Your task to perform on an android device: check out phone information Image 0: 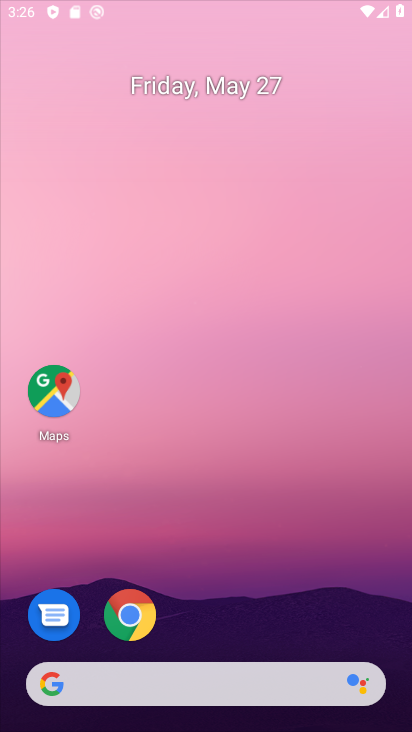
Step 0: press home button
Your task to perform on an android device: check out phone information Image 1: 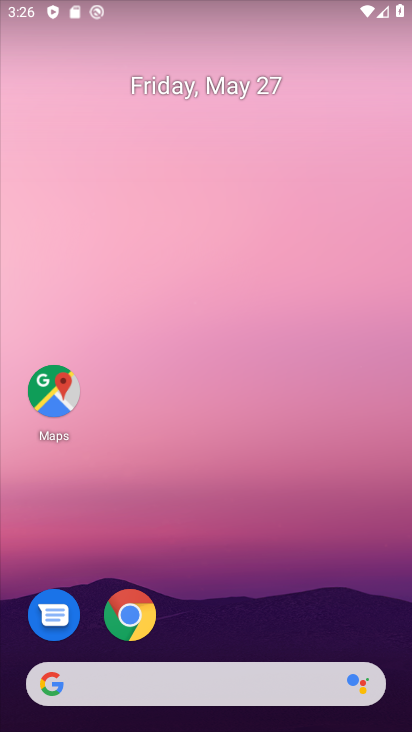
Step 1: drag from (116, 730) to (71, 38)
Your task to perform on an android device: check out phone information Image 2: 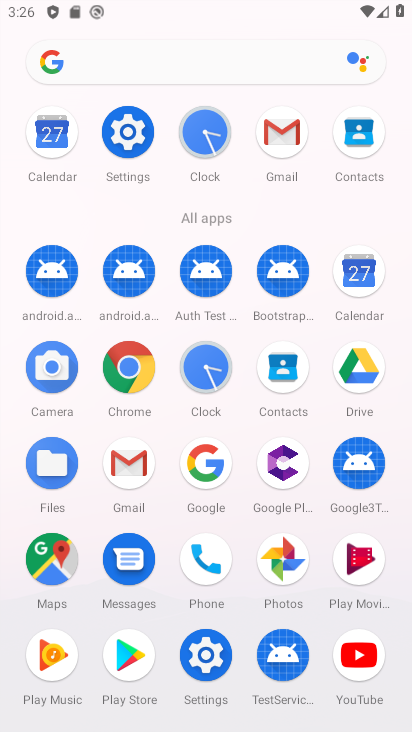
Step 2: click (124, 153)
Your task to perform on an android device: check out phone information Image 3: 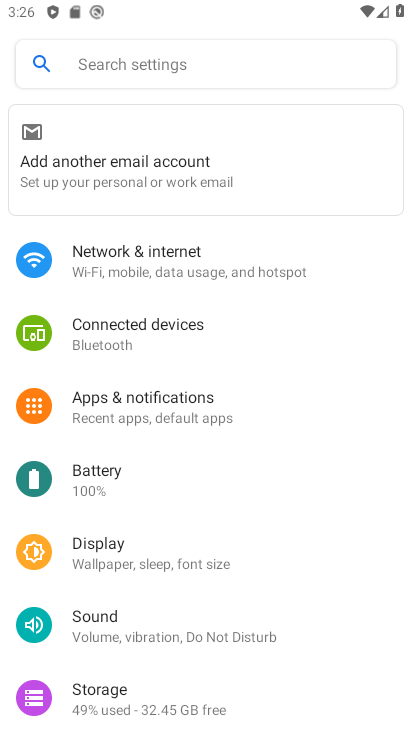
Step 3: drag from (297, 690) to (272, 268)
Your task to perform on an android device: check out phone information Image 4: 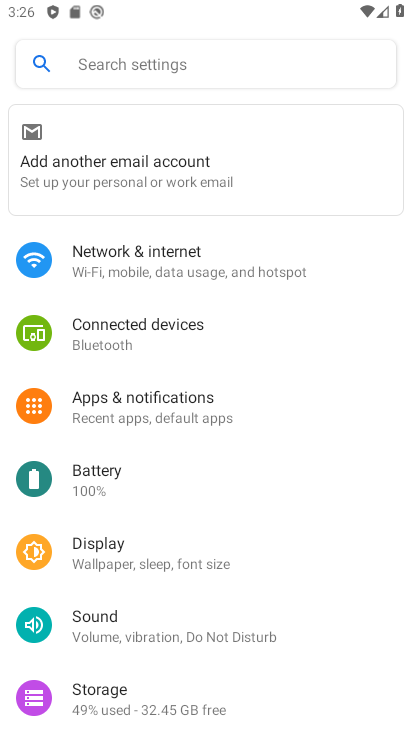
Step 4: drag from (392, 716) to (317, 114)
Your task to perform on an android device: check out phone information Image 5: 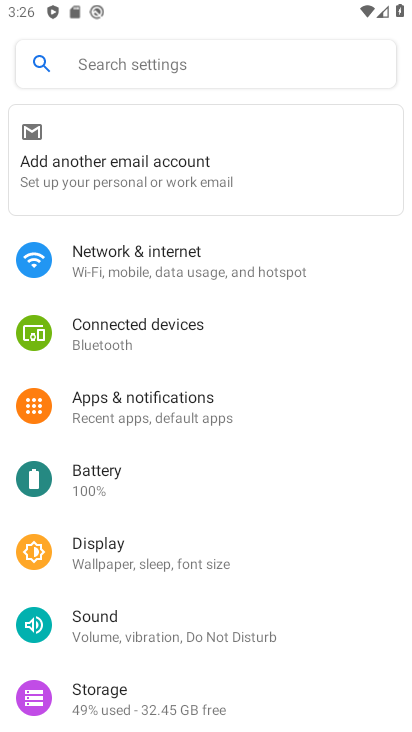
Step 5: drag from (337, 710) to (278, 52)
Your task to perform on an android device: check out phone information Image 6: 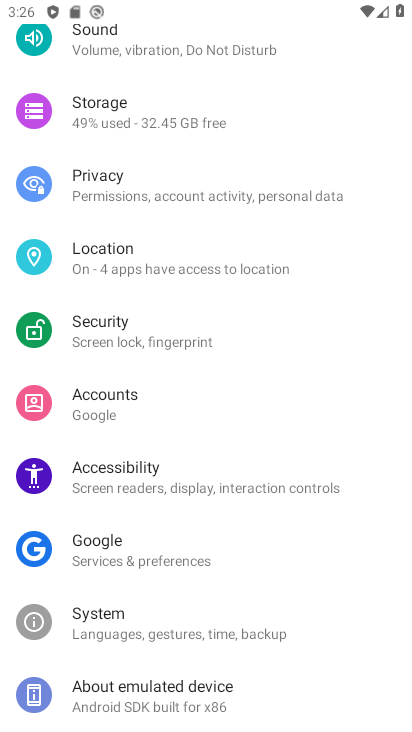
Step 6: click (167, 696)
Your task to perform on an android device: check out phone information Image 7: 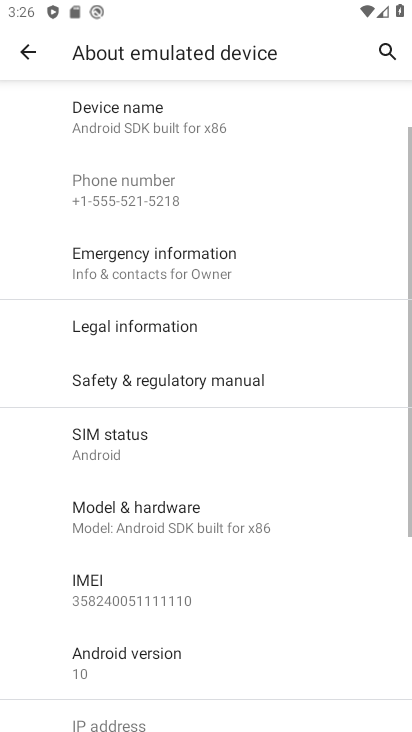
Step 7: drag from (168, 697) to (159, 83)
Your task to perform on an android device: check out phone information Image 8: 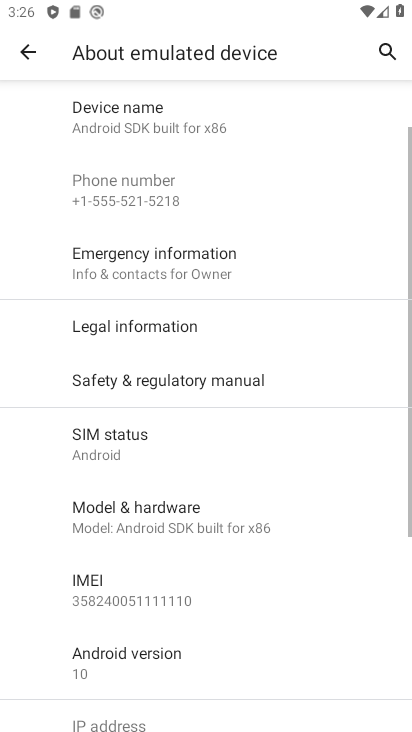
Step 8: drag from (313, 718) to (273, 235)
Your task to perform on an android device: check out phone information Image 9: 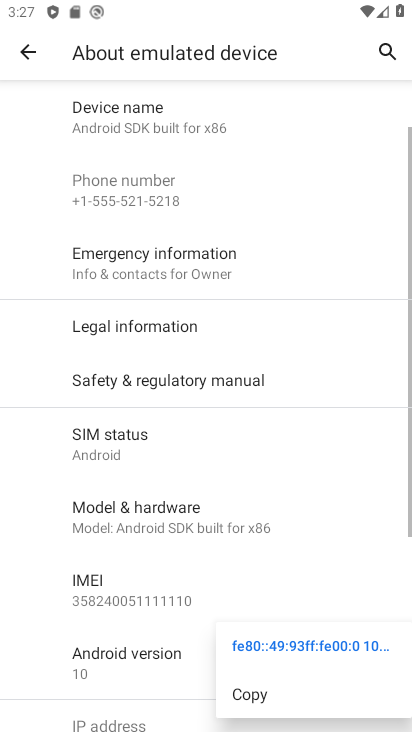
Step 9: click (330, 300)
Your task to perform on an android device: check out phone information Image 10: 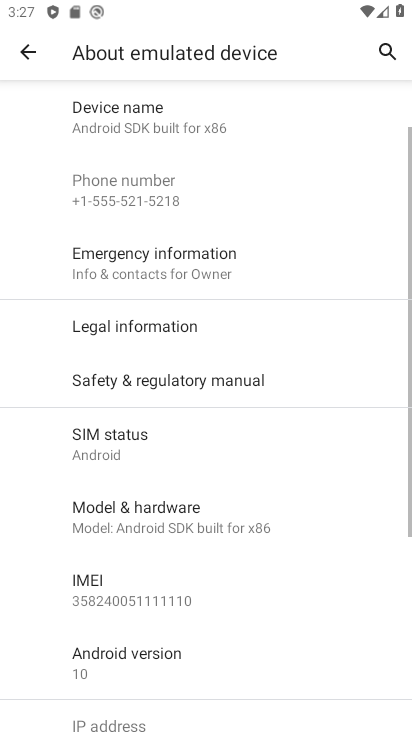
Step 10: task complete